Your task to perform on an android device: Open privacy settings Image 0: 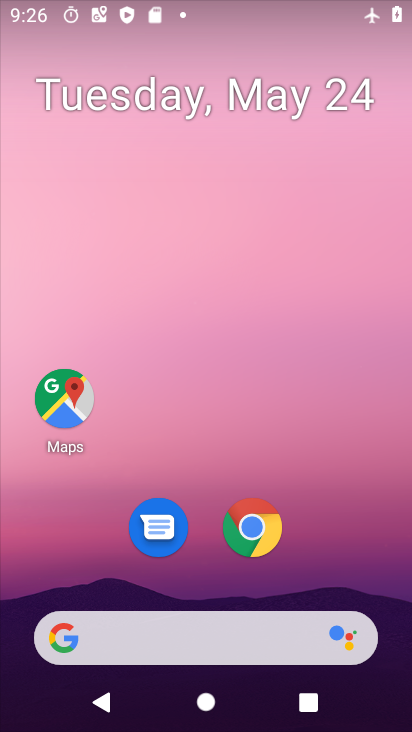
Step 0: click (252, 508)
Your task to perform on an android device: Open privacy settings Image 1: 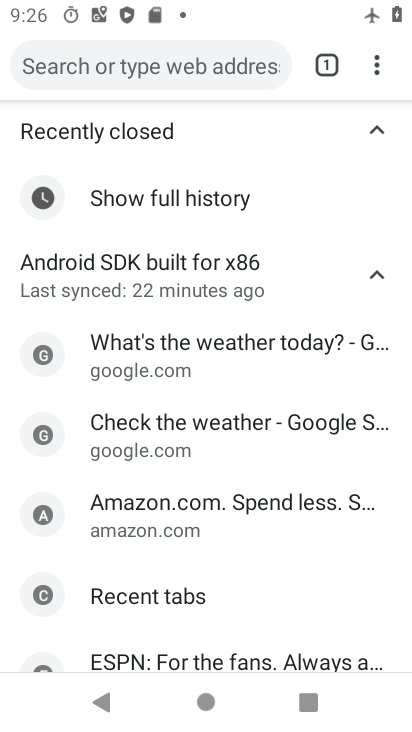
Step 1: click (373, 56)
Your task to perform on an android device: Open privacy settings Image 2: 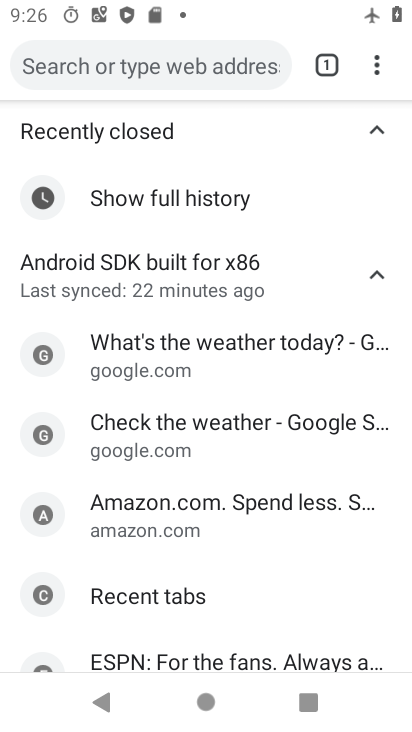
Step 2: click (376, 65)
Your task to perform on an android device: Open privacy settings Image 3: 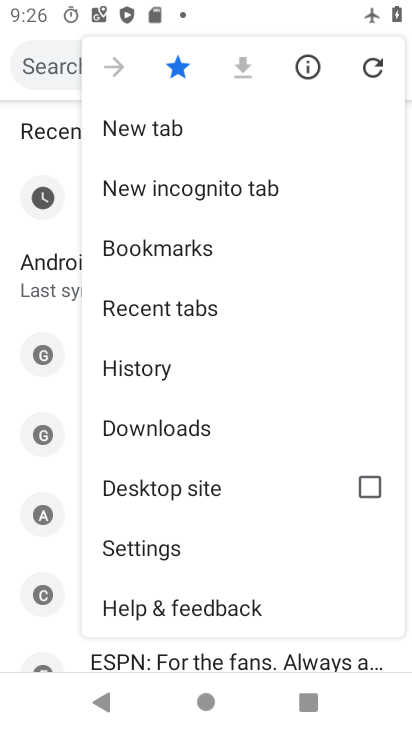
Step 3: click (157, 549)
Your task to perform on an android device: Open privacy settings Image 4: 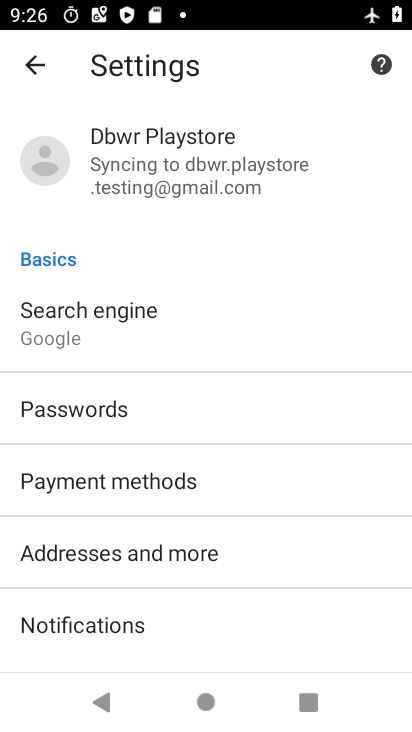
Step 4: drag from (265, 640) to (298, 285)
Your task to perform on an android device: Open privacy settings Image 5: 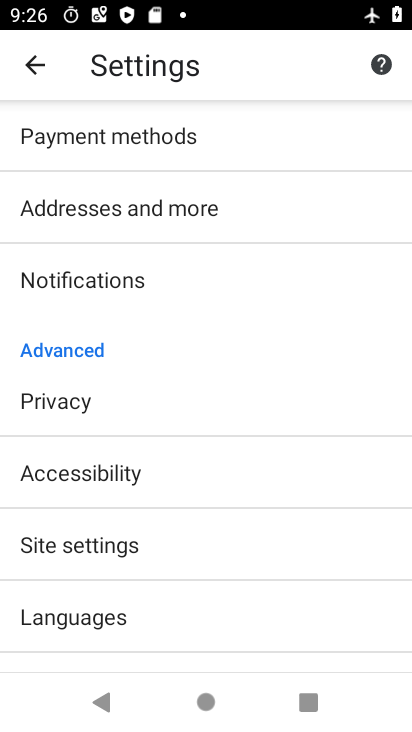
Step 5: click (70, 403)
Your task to perform on an android device: Open privacy settings Image 6: 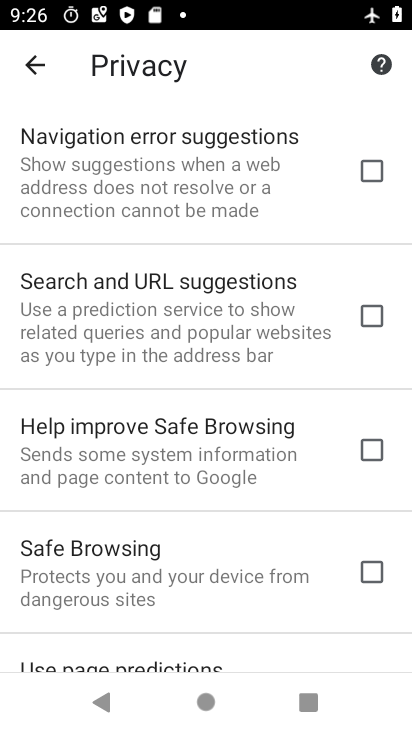
Step 6: task complete